Your task to perform on an android device: turn on the 24-hour format for clock Image 0: 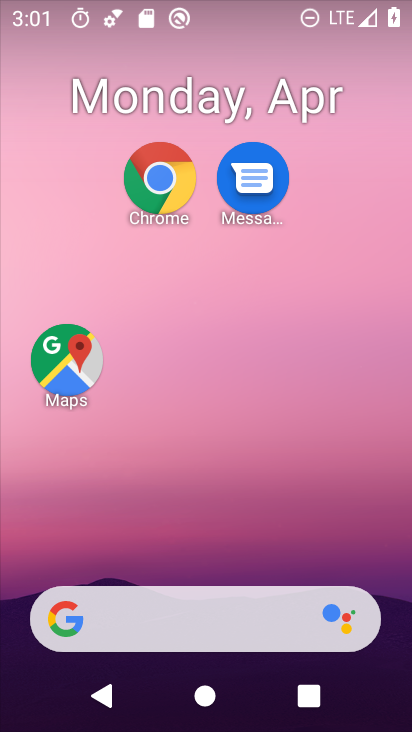
Step 0: drag from (268, 600) to (274, 0)
Your task to perform on an android device: turn on the 24-hour format for clock Image 1: 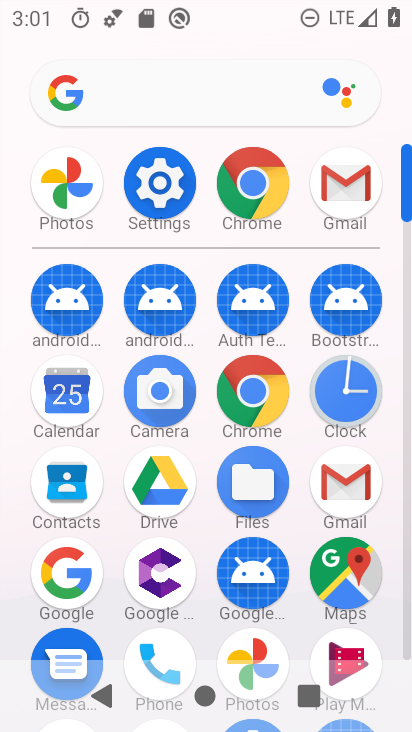
Step 1: click (263, 402)
Your task to perform on an android device: turn on the 24-hour format for clock Image 2: 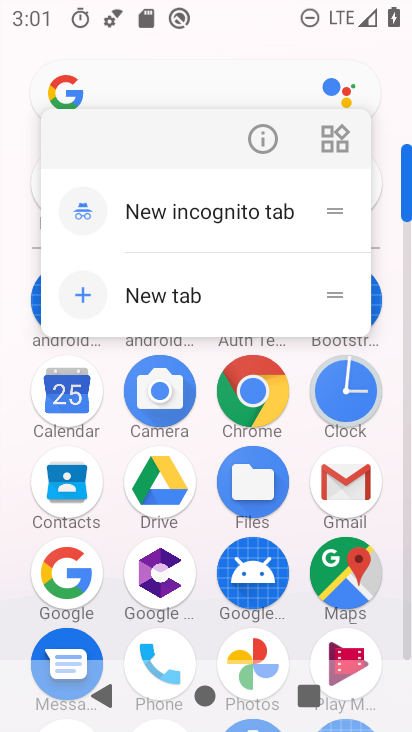
Step 2: click (356, 395)
Your task to perform on an android device: turn on the 24-hour format for clock Image 3: 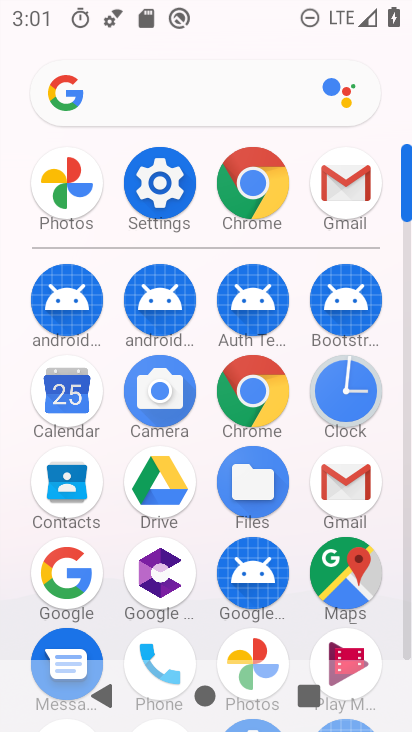
Step 3: click (351, 406)
Your task to perform on an android device: turn on the 24-hour format for clock Image 4: 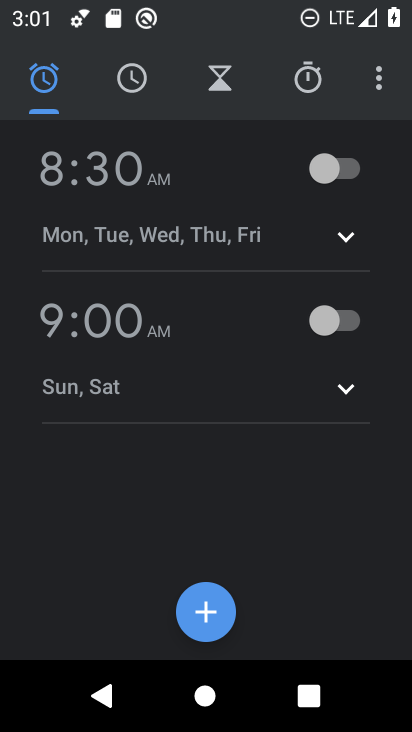
Step 4: click (370, 81)
Your task to perform on an android device: turn on the 24-hour format for clock Image 5: 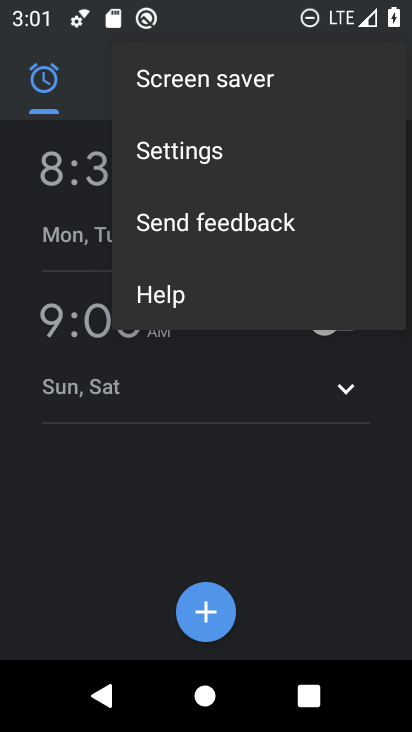
Step 5: click (206, 157)
Your task to perform on an android device: turn on the 24-hour format for clock Image 6: 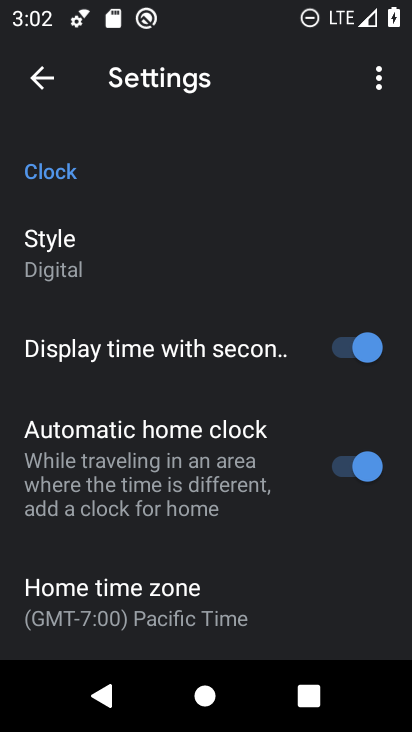
Step 6: drag from (173, 595) to (161, 117)
Your task to perform on an android device: turn on the 24-hour format for clock Image 7: 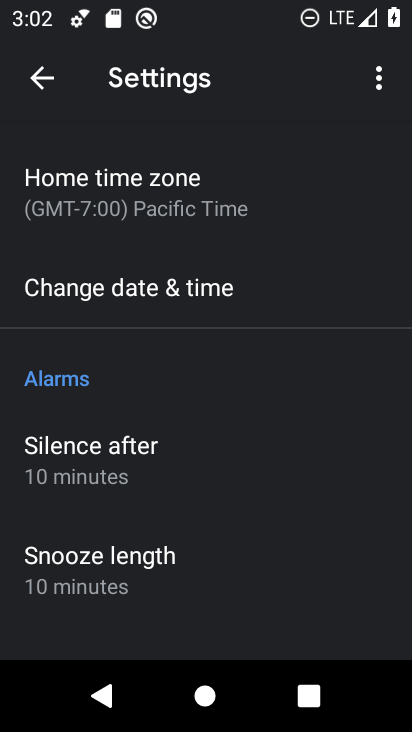
Step 7: drag from (196, 553) to (234, 101)
Your task to perform on an android device: turn on the 24-hour format for clock Image 8: 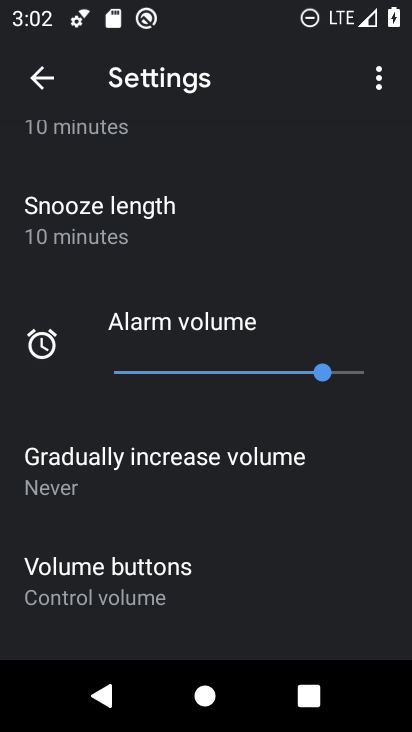
Step 8: drag from (275, 634) to (262, 94)
Your task to perform on an android device: turn on the 24-hour format for clock Image 9: 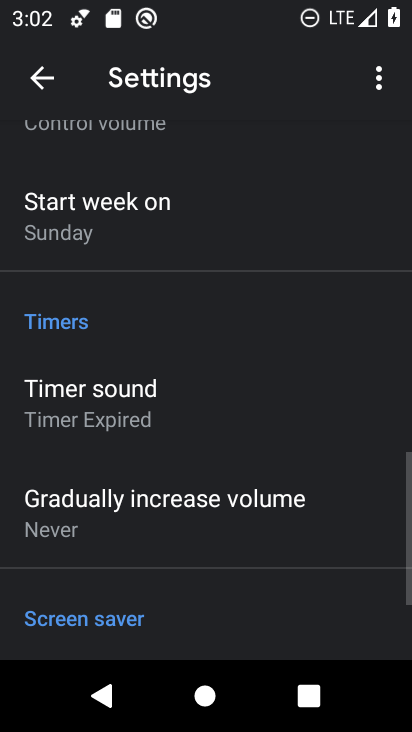
Step 9: drag from (190, 176) to (221, 619)
Your task to perform on an android device: turn on the 24-hour format for clock Image 10: 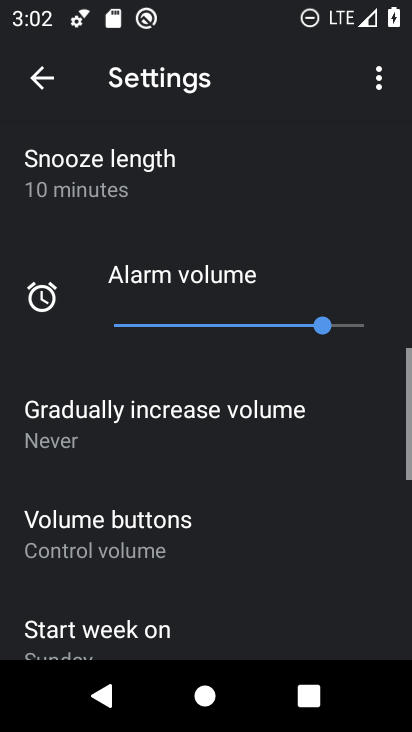
Step 10: drag from (197, 170) to (185, 665)
Your task to perform on an android device: turn on the 24-hour format for clock Image 11: 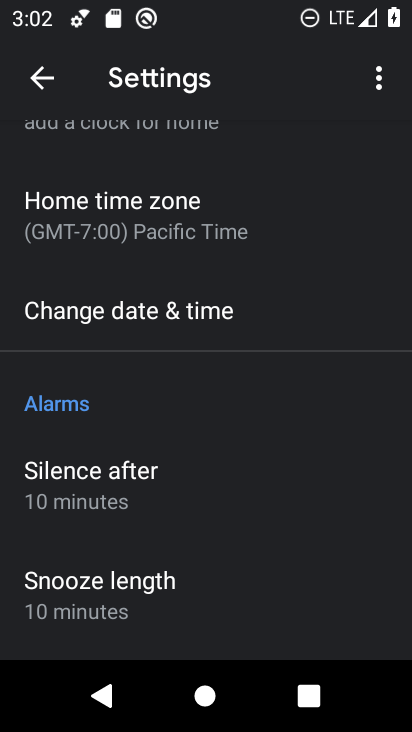
Step 11: click (193, 310)
Your task to perform on an android device: turn on the 24-hour format for clock Image 12: 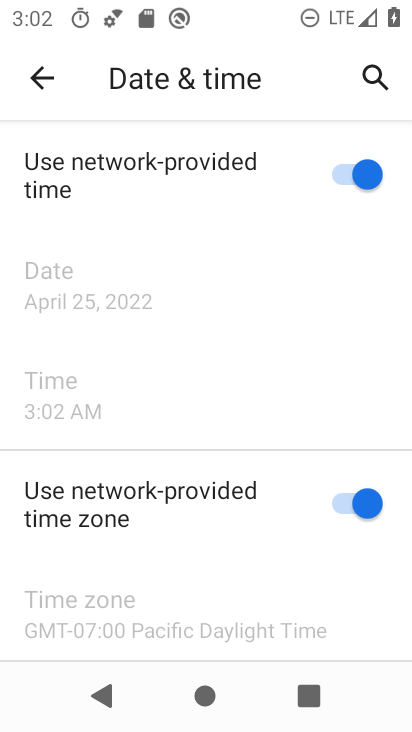
Step 12: drag from (233, 611) to (246, 72)
Your task to perform on an android device: turn on the 24-hour format for clock Image 13: 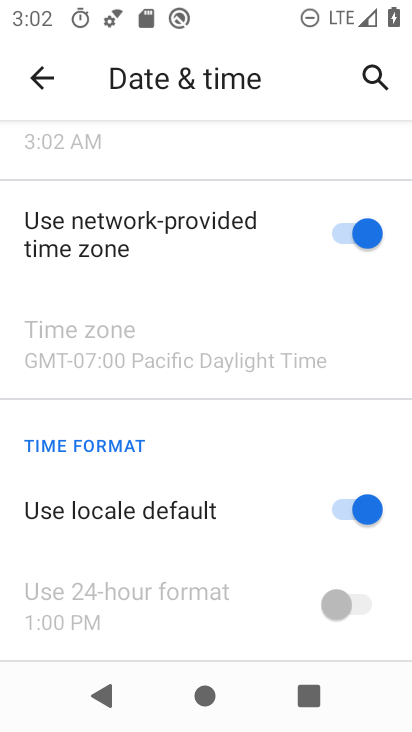
Step 13: click (342, 510)
Your task to perform on an android device: turn on the 24-hour format for clock Image 14: 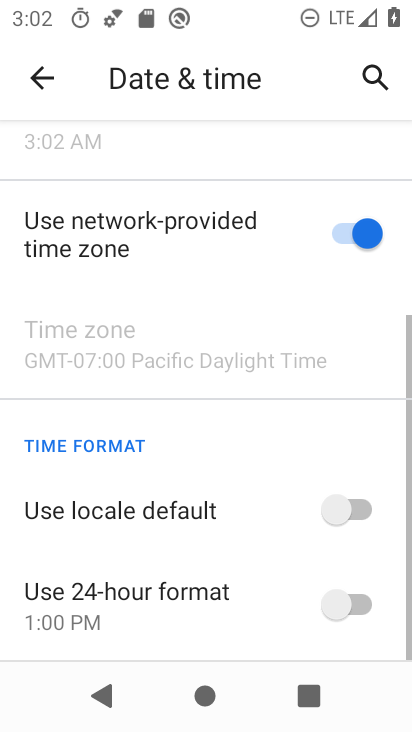
Step 14: click (356, 606)
Your task to perform on an android device: turn on the 24-hour format for clock Image 15: 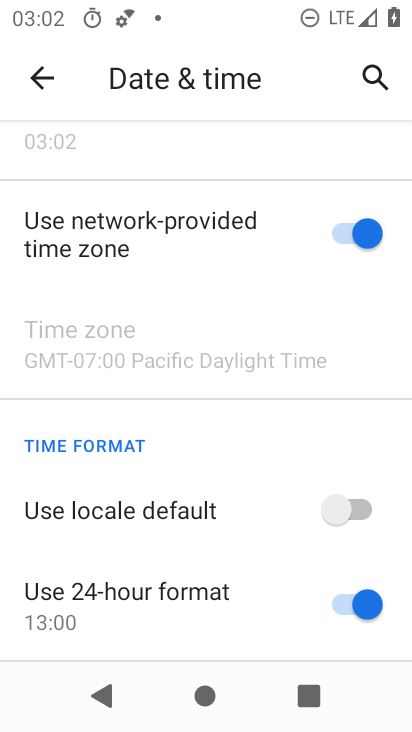
Step 15: task complete